Your task to perform on an android device: toggle show notifications on the lock screen Image 0: 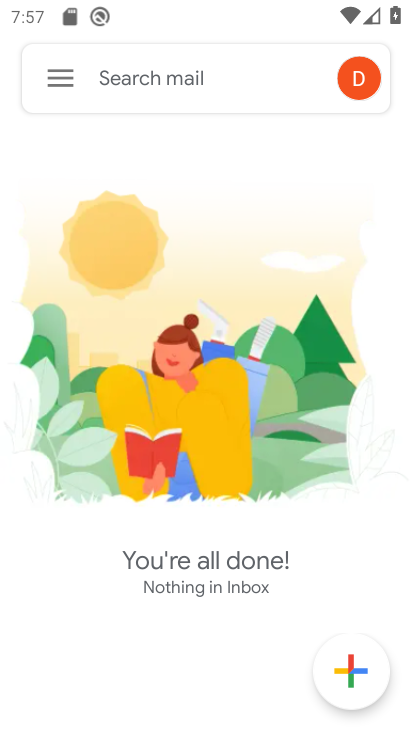
Step 0: task impossible